Your task to perform on an android device: Open network settings Image 0: 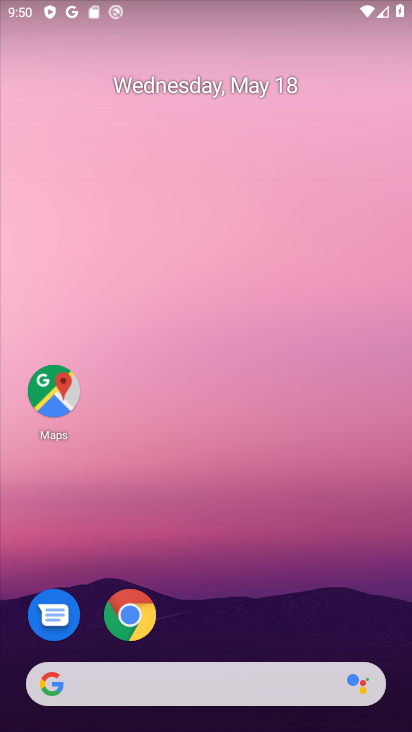
Step 0: drag from (306, 631) to (220, 56)
Your task to perform on an android device: Open network settings Image 1: 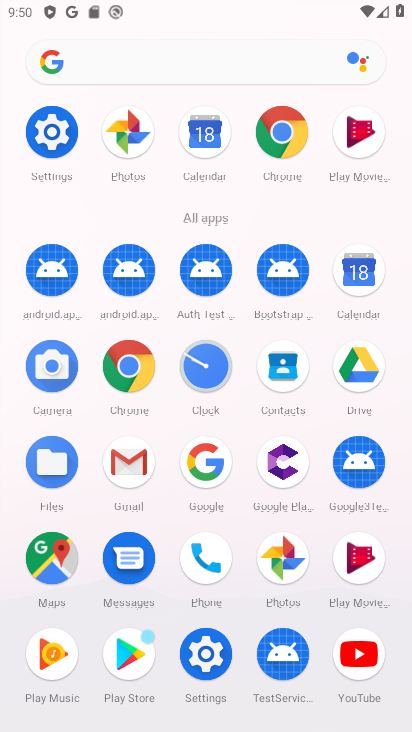
Step 1: click (48, 149)
Your task to perform on an android device: Open network settings Image 2: 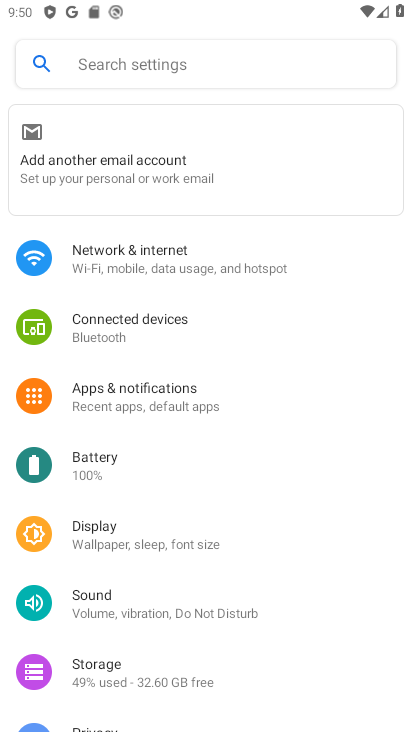
Step 2: click (208, 258)
Your task to perform on an android device: Open network settings Image 3: 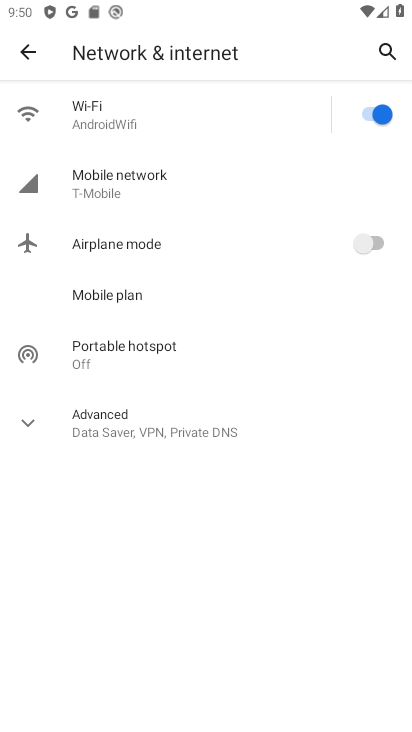
Step 3: task complete